Your task to perform on an android device: Open the calendar app, open the side menu, and click the "Day" option Image 0: 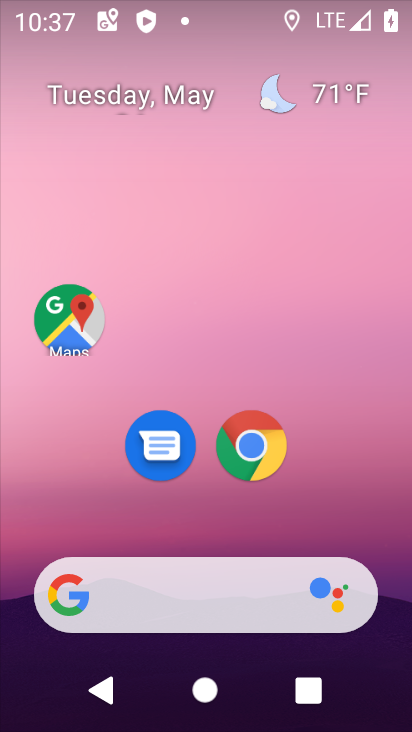
Step 0: drag from (329, 508) to (267, 152)
Your task to perform on an android device: Open the calendar app, open the side menu, and click the "Day" option Image 1: 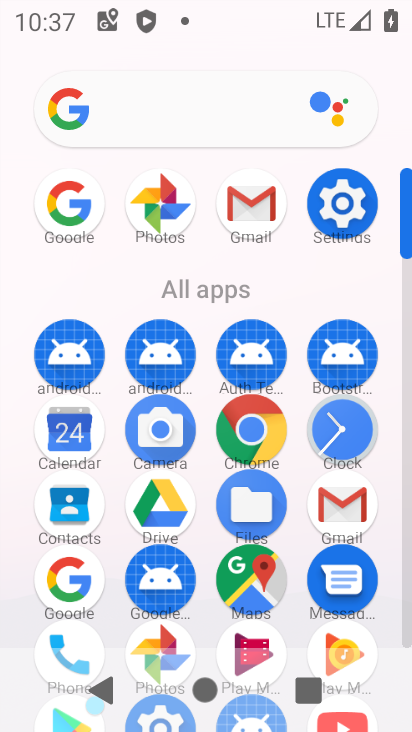
Step 1: click (75, 432)
Your task to perform on an android device: Open the calendar app, open the side menu, and click the "Day" option Image 2: 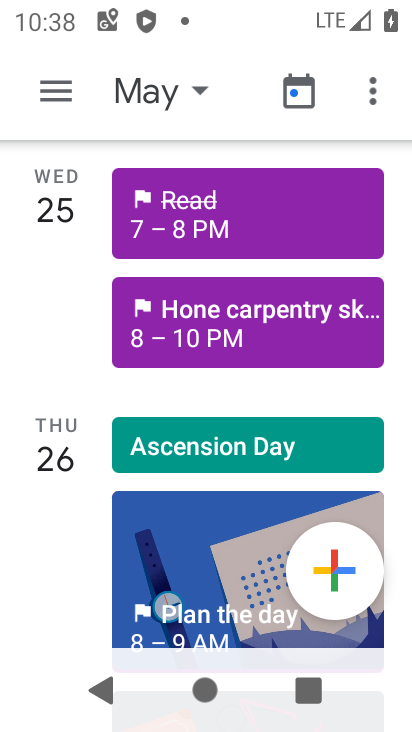
Step 2: click (57, 94)
Your task to perform on an android device: Open the calendar app, open the side menu, and click the "Day" option Image 3: 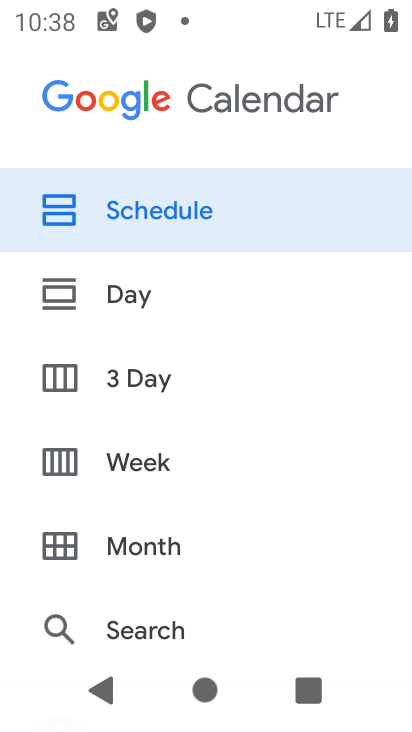
Step 3: click (131, 298)
Your task to perform on an android device: Open the calendar app, open the side menu, and click the "Day" option Image 4: 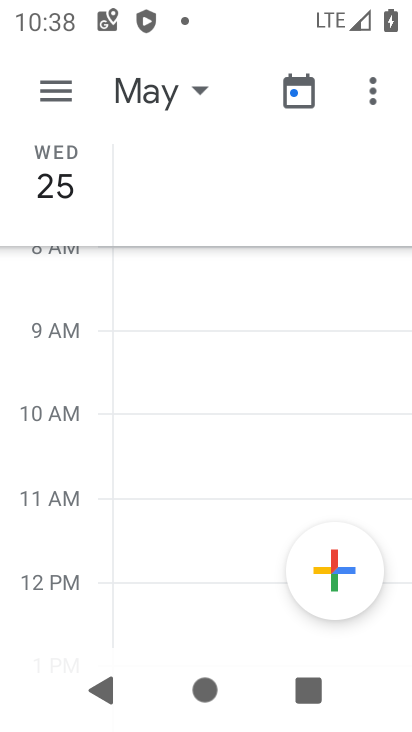
Step 4: task complete